Your task to perform on an android device: make emails show in primary in the gmail app Image 0: 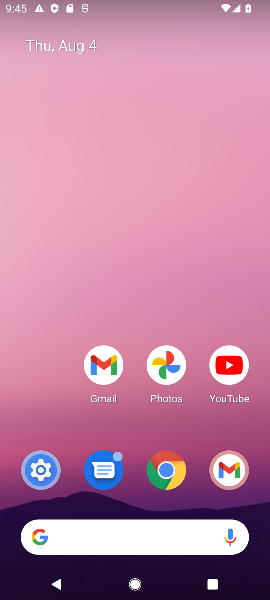
Step 0: click (97, 366)
Your task to perform on an android device: make emails show in primary in the gmail app Image 1: 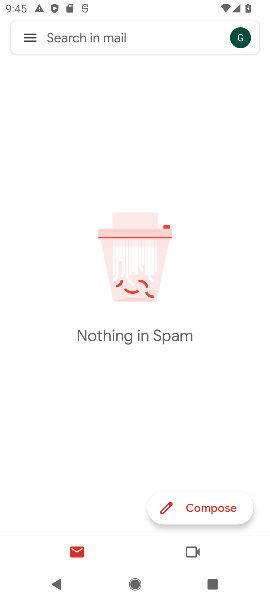
Step 1: click (25, 43)
Your task to perform on an android device: make emails show in primary in the gmail app Image 2: 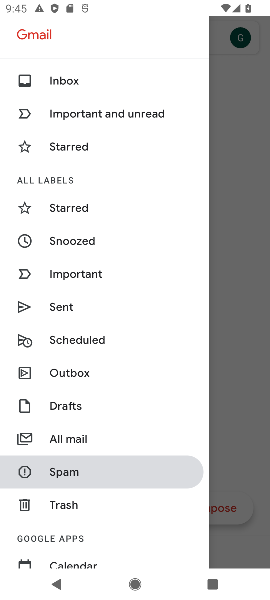
Step 2: drag from (87, 524) to (78, 284)
Your task to perform on an android device: make emails show in primary in the gmail app Image 3: 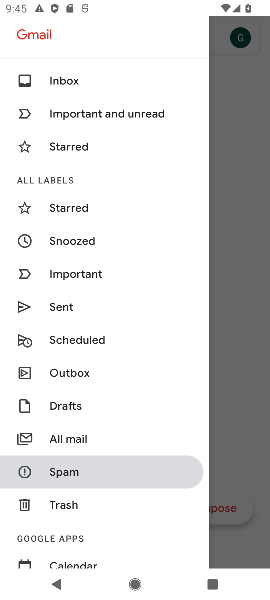
Step 3: drag from (71, 532) to (75, 197)
Your task to perform on an android device: make emails show in primary in the gmail app Image 4: 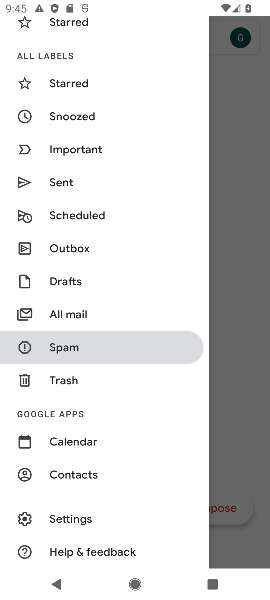
Step 4: click (61, 512)
Your task to perform on an android device: make emails show in primary in the gmail app Image 5: 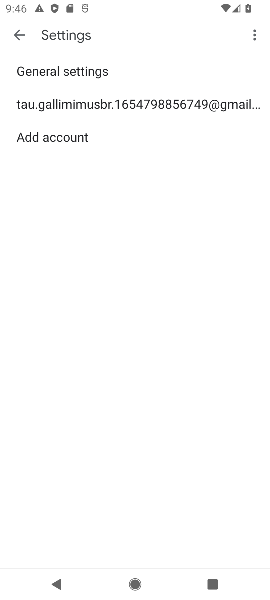
Step 5: click (70, 102)
Your task to perform on an android device: make emails show in primary in the gmail app Image 6: 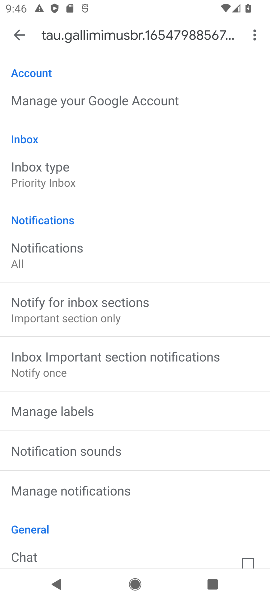
Step 6: click (38, 172)
Your task to perform on an android device: make emails show in primary in the gmail app Image 7: 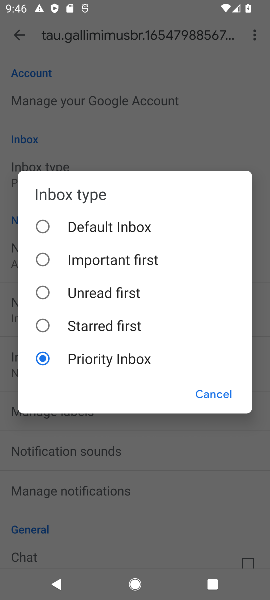
Step 7: click (102, 220)
Your task to perform on an android device: make emails show in primary in the gmail app Image 8: 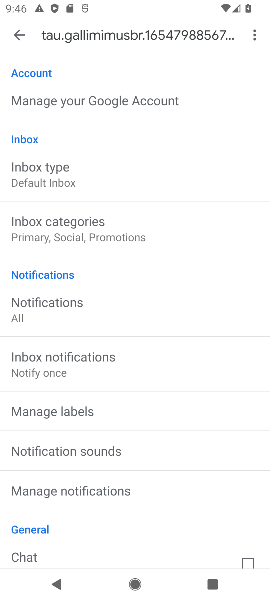
Step 8: task complete